Your task to perform on an android device: turn pop-ups on in chrome Image 0: 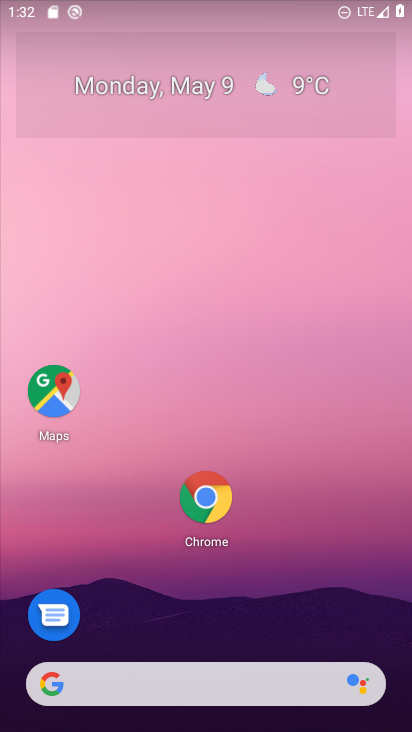
Step 0: drag from (302, 535) to (271, 104)
Your task to perform on an android device: turn pop-ups on in chrome Image 1: 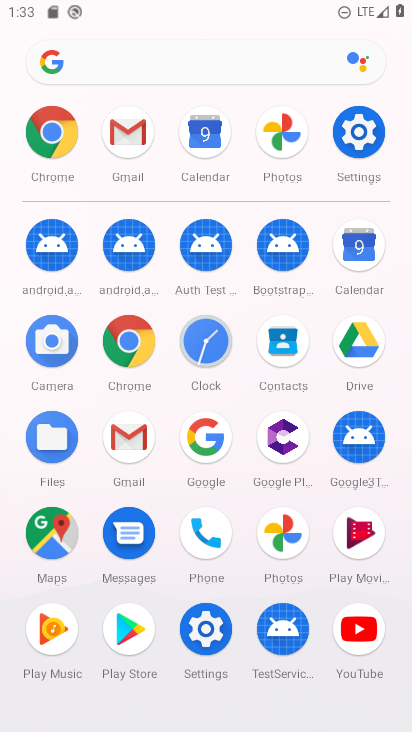
Step 1: click (136, 340)
Your task to perform on an android device: turn pop-ups on in chrome Image 2: 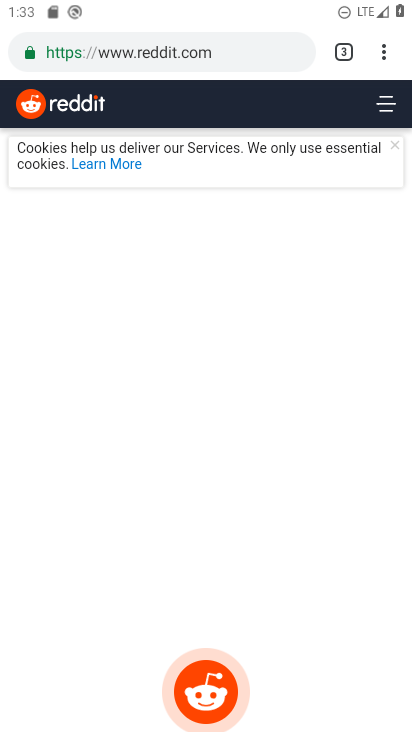
Step 2: drag from (387, 42) to (214, 616)
Your task to perform on an android device: turn pop-ups on in chrome Image 3: 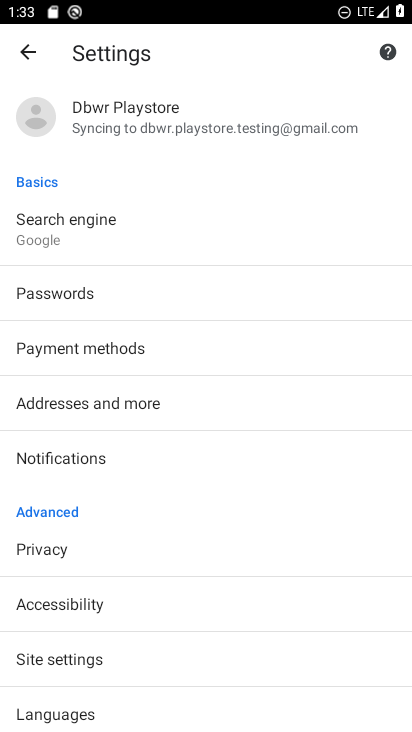
Step 3: click (58, 663)
Your task to perform on an android device: turn pop-ups on in chrome Image 4: 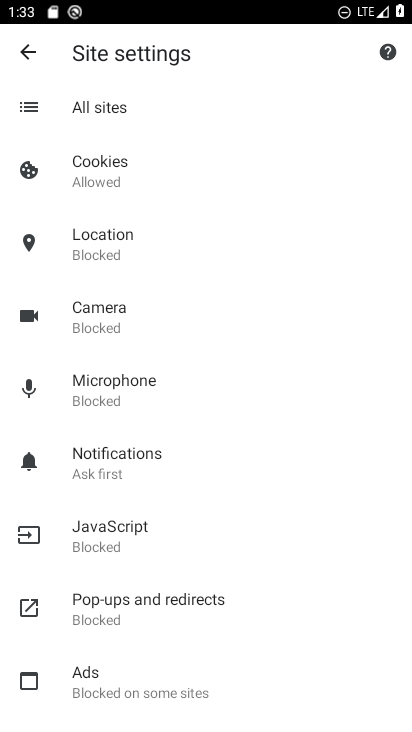
Step 4: click (129, 598)
Your task to perform on an android device: turn pop-ups on in chrome Image 5: 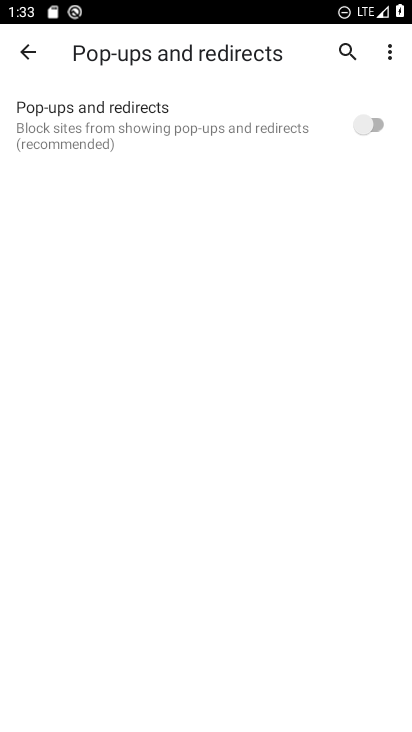
Step 5: click (331, 112)
Your task to perform on an android device: turn pop-ups on in chrome Image 6: 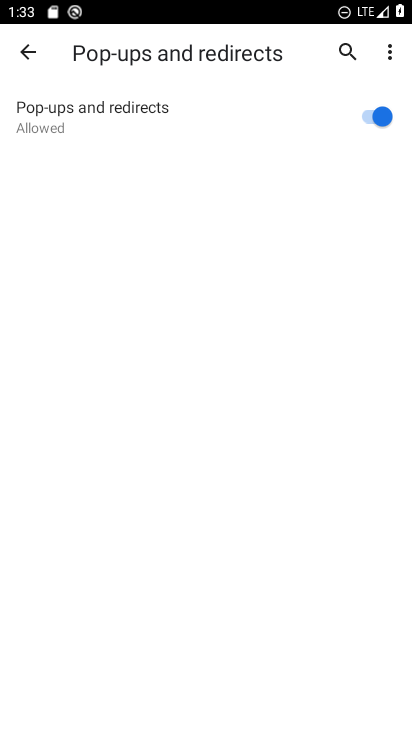
Step 6: task complete